Your task to perform on an android device: turn on javascript in the chrome app Image 0: 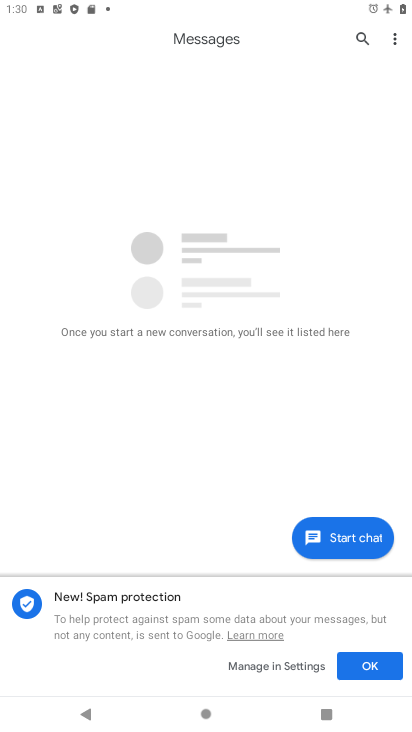
Step 0: press home button
Your task to perform on an android device: turn on javascript in the chrome app Image 1: 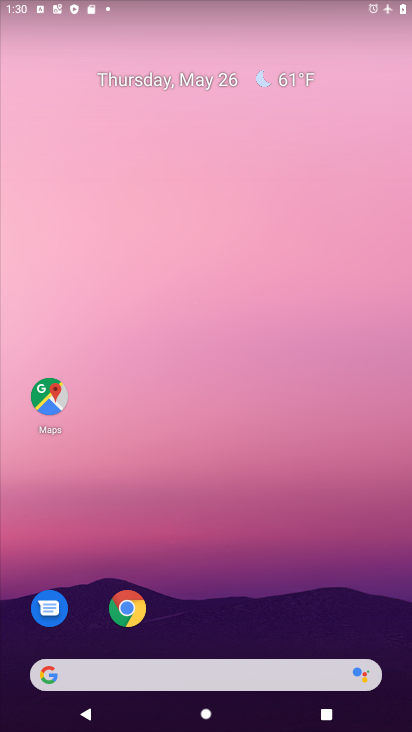
Step 1: click (127, 613)
Your task to perform on an android device: turn on javascript in the chrome app Image 2: 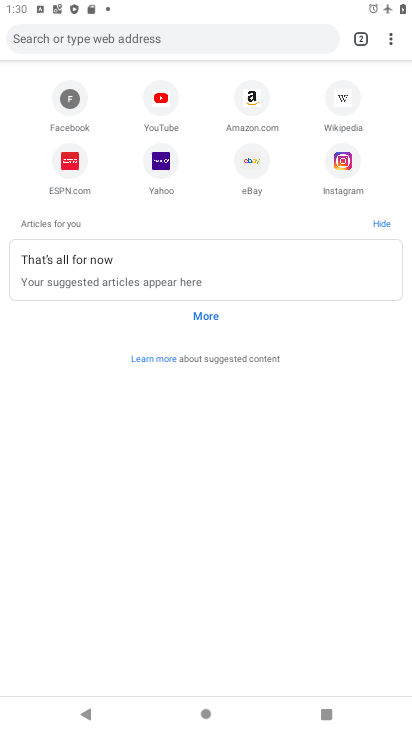
Step 2: click (387, 42)
Your task to perform on an android device: turn on javascript in the chrome app Image 3: 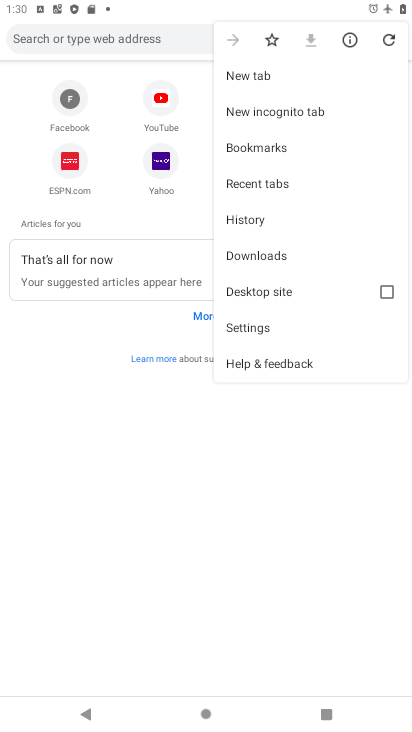
Step 3: click (249, 333)
Your task to perform on an android device: turn on javascript in the chrome app Image 4: 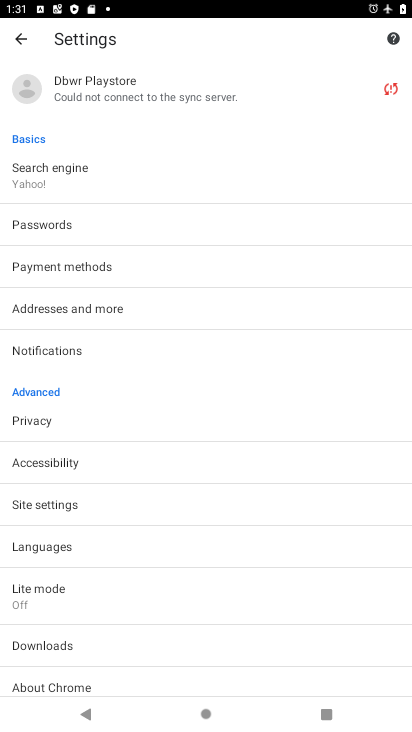
Step 4: click (61, 497)
Your task to perform on an android device: turn on javascript in the chrome app Image 5: 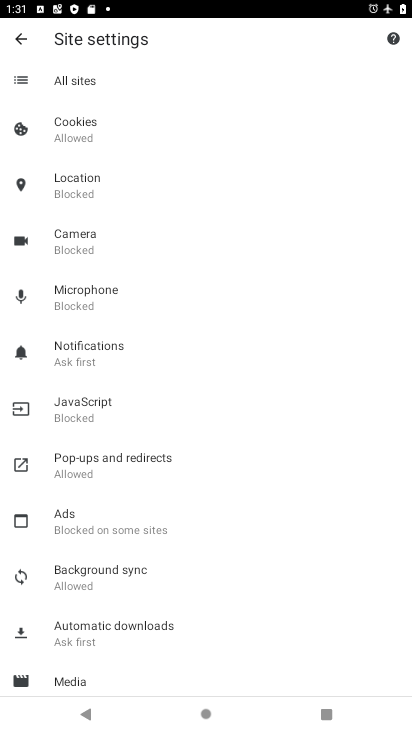
Step 5: click (77, 407)
Your task to perform on an android device: turn on javascript in the chrome app Image 6: 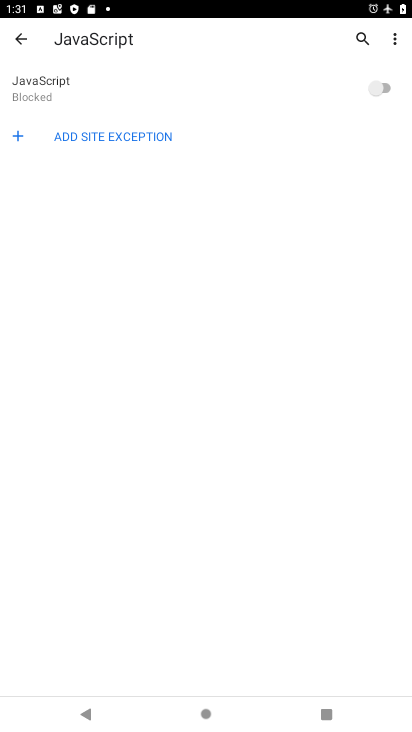
Step 6: click (384, 87)
Your task to perform on an android device: turn on javascript in the chrome app Image 7: 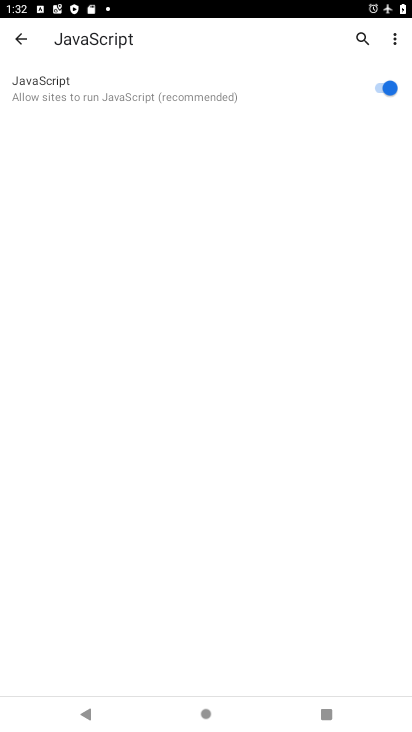
Step 7: task complete